Your task to perform on an android device: Do I have any events tomorrow? Image 0: 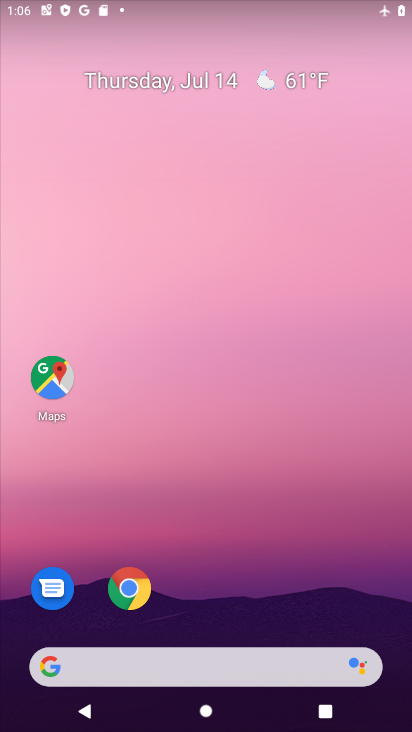
Step 0: drag from (242, 612) to (281, 131)
Your task to perform on an android device: Do I have any events tomorrow? Image 1: 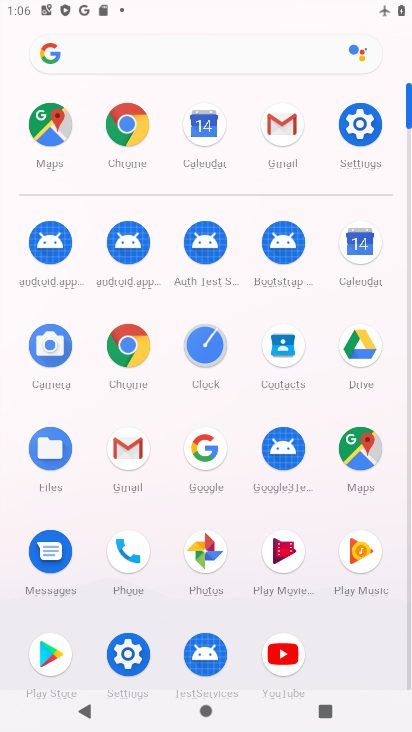
Step 1: click (362, 252)
Your task to perform on an android device: Do I have any events tomorrow? Image 2: 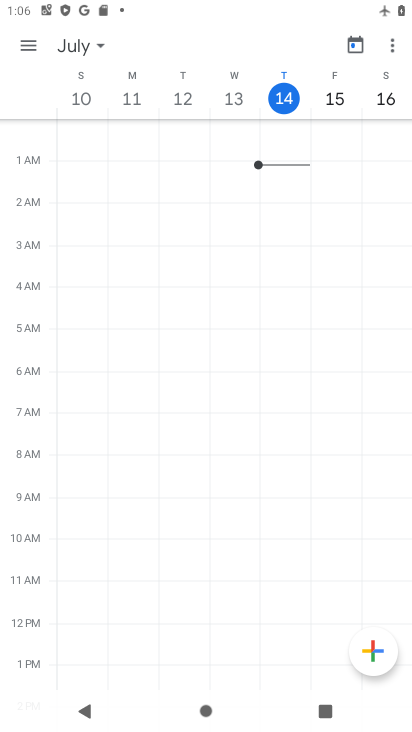
Step 2: click (33, 45)
Your task to perform on an android device: Do I have any events tomorrow? Image 3: 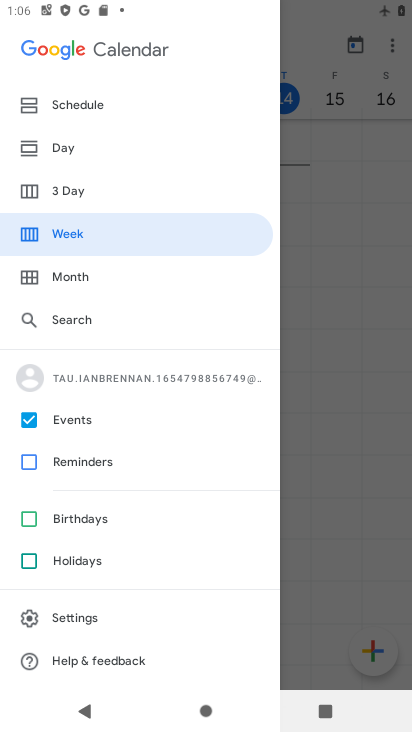
Step 3: click (87, 196)
Your task to perform on an android device: Do I have any events tomorrow? Image 4: 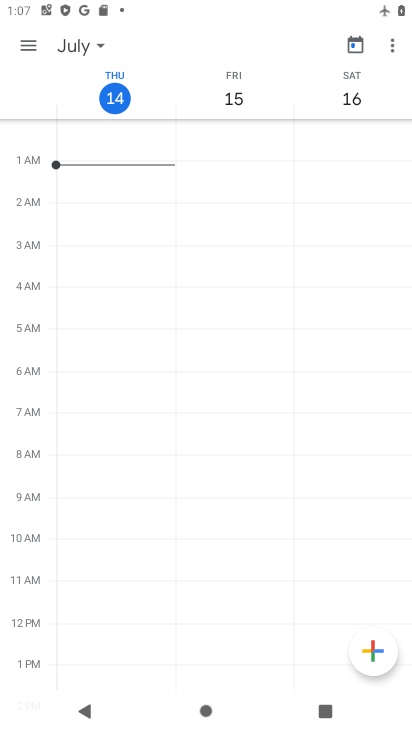
Step 4: task complete